Your task to perform on an android device: empty trash in google photos Image 0: 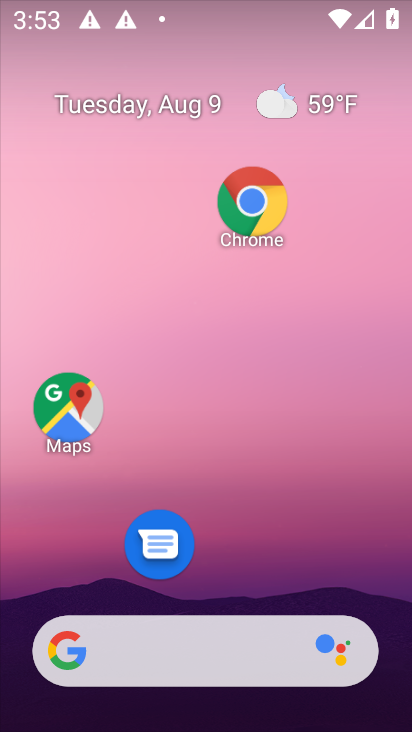
Step 0: drag from (267, 614) to (267, 206)
Your task to perform on an android device: empty trash in google photos Image 1: 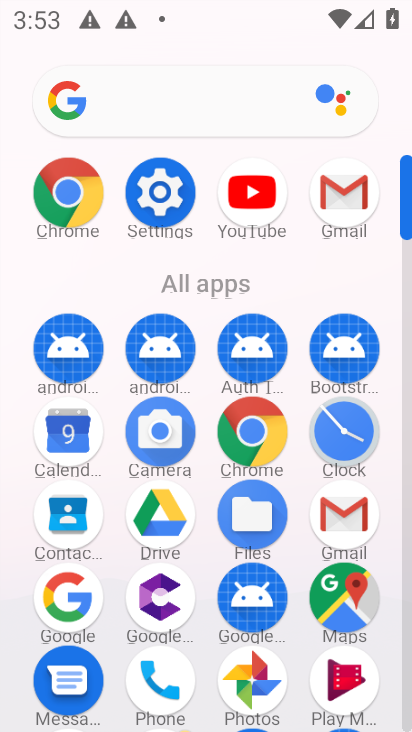
Step 1: click (248, 671)
Your task to perform on an android device: empty trash in google photos Image 2: 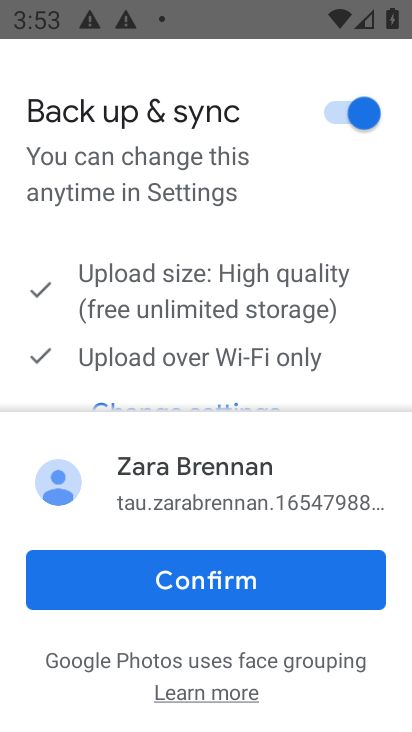
Step 2: click (166, 596)
Your task to perform on an android device: empty trash in google photos Image 3: 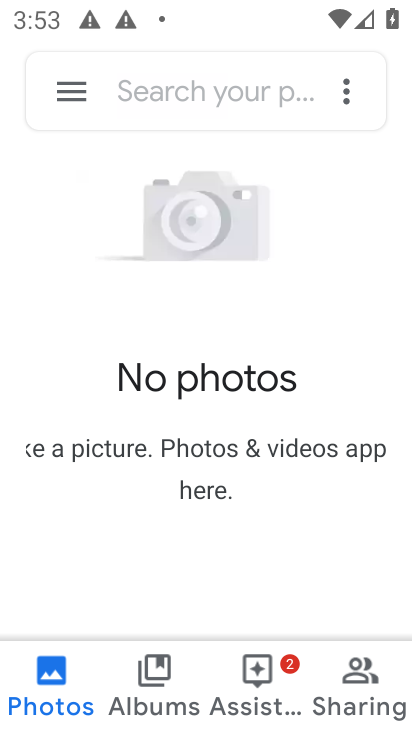
Step 3: click (60, 100)
Your task to perform on an android device: empty trash in google photos Image 4: 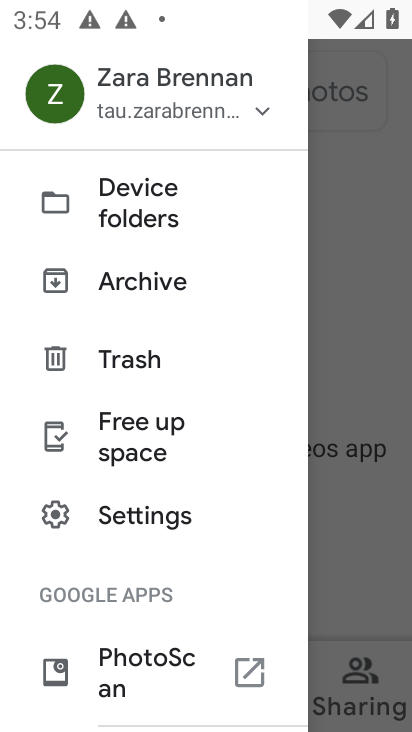
Step 4: click (112, 372)
Your task to perform on an android device: empty trash in google photos Image 5: 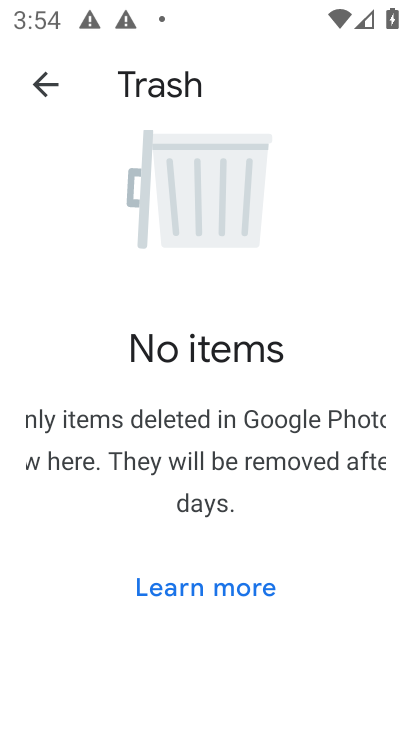
Step 5: task complete